Your task to perform on an android device: turn notification dots off Image 0: 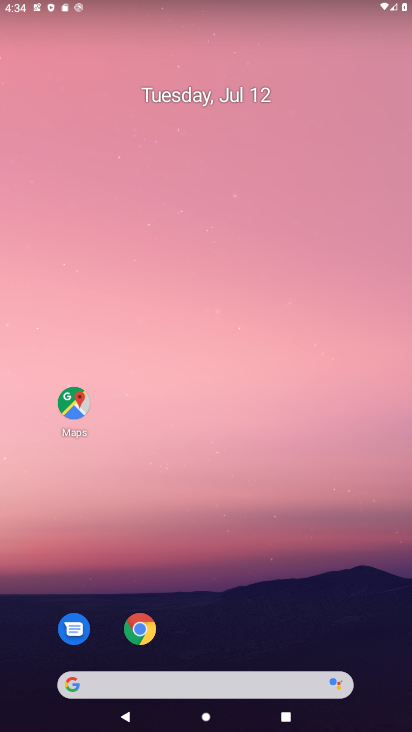
Step 0: press home button
Your task to perform on an android device: turn notification dots off Image 1: 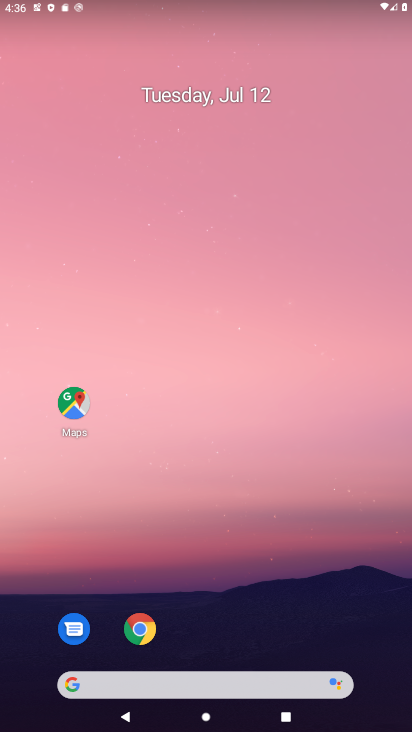
Step 1: drag from (238, 645) to (317, 12)
Your task to perform on an android device: turn notification dots off Image 2: 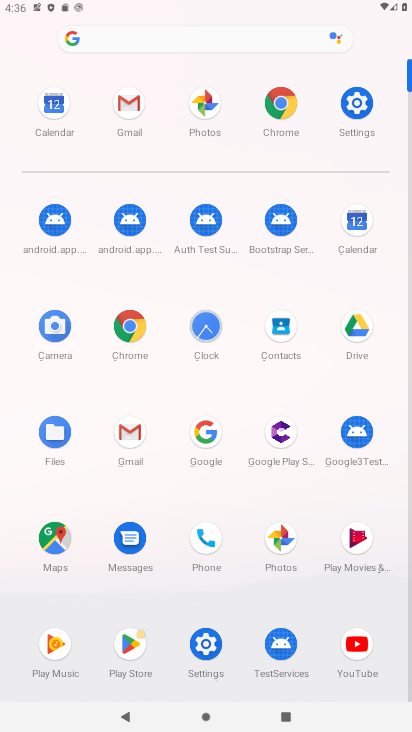
Step 2: click (367, 102)
Your task to perform on an android device: turn notification dots off Image 3: 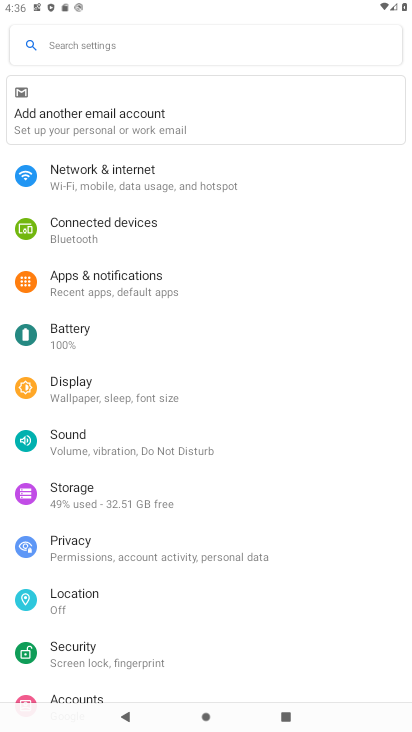
Step 3: click (97, 285)
Your task to perform on an android device: turn notification dots off Image 4: 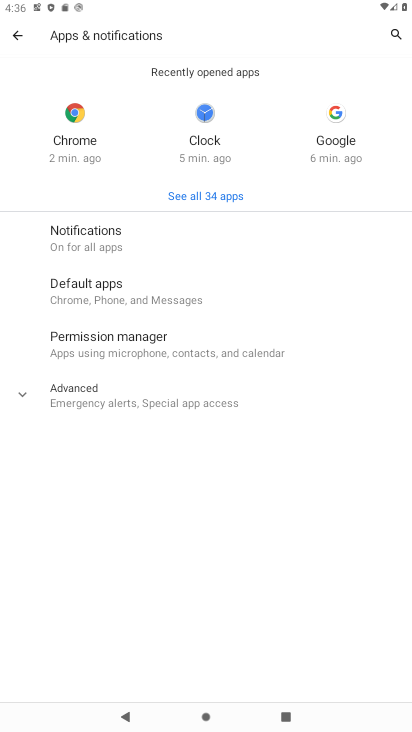
Step 4: click (97, 238)
Your task to perform on an android device: turn notification dots off Image 5: 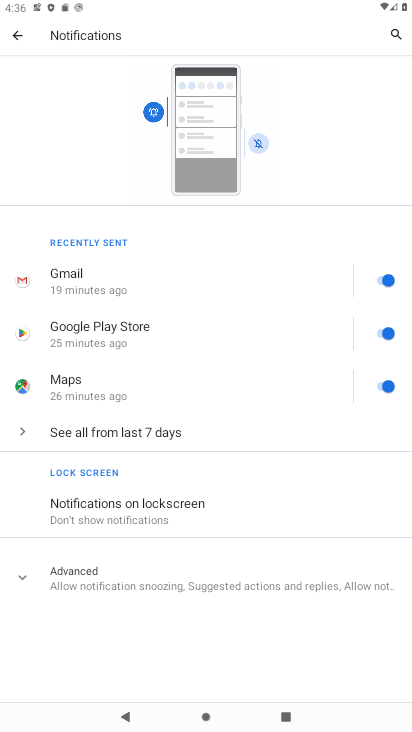
Step 5: click (73, 579)
Your task to perform on an android device: turn notification dots off Image 6: 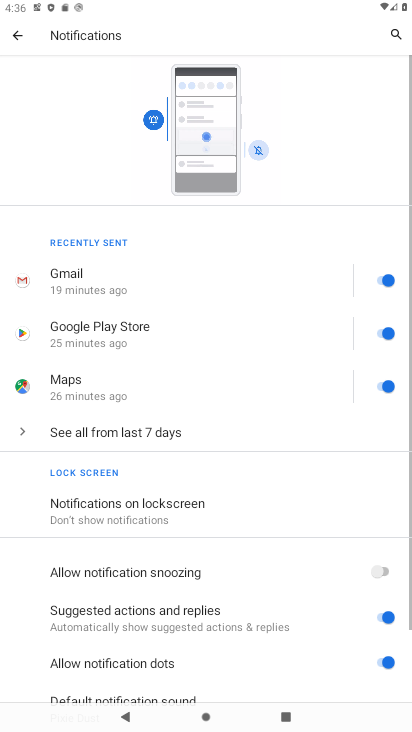
Step 6: drag from (278, 581) to (325, 244)
Your task to perform on an android device: turn notification dots off Image 7: 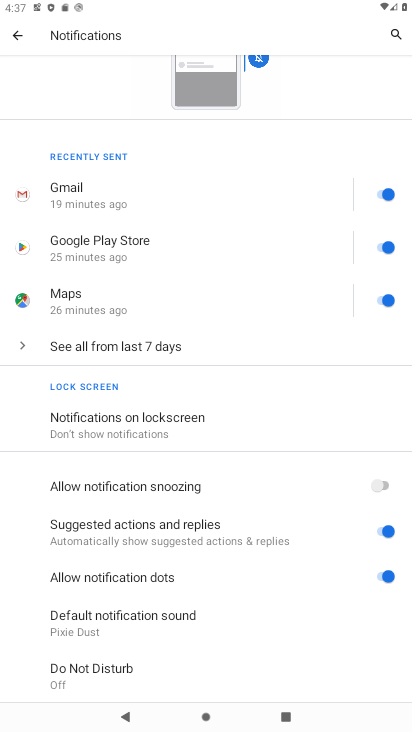
Step 7: click (385, 575)
Your task to perform on an android device: turn notification dots off Image 8: 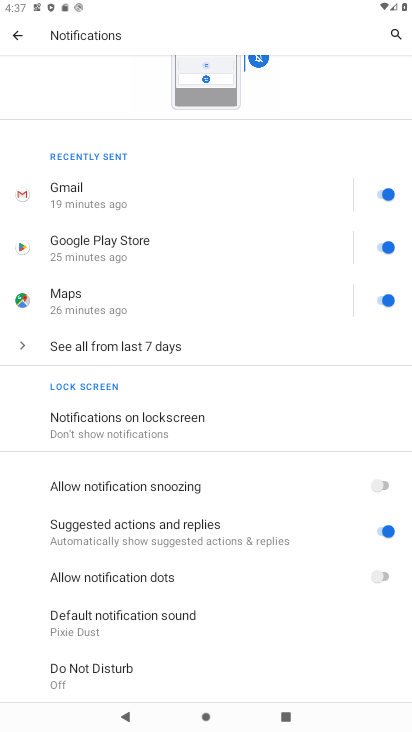
Step 8: task complete